Your task to perform on an android device: What is the speed of sound? Image 0: 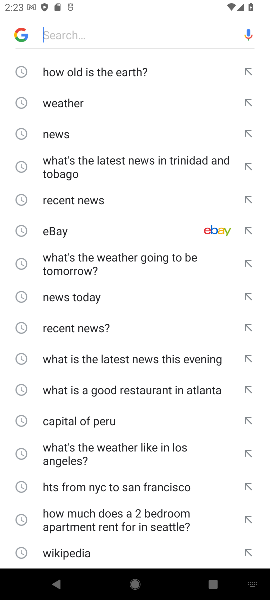
Step 0: task complete